Your task to perform on an android device: turn on javascript in the chrome app Image 0: 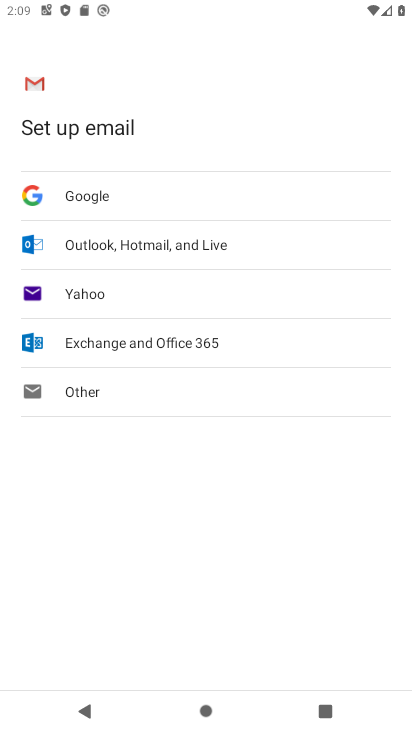
Step 0: press back button
Your task to perform on an android device: turn on javascript in the chrome app Image 1: 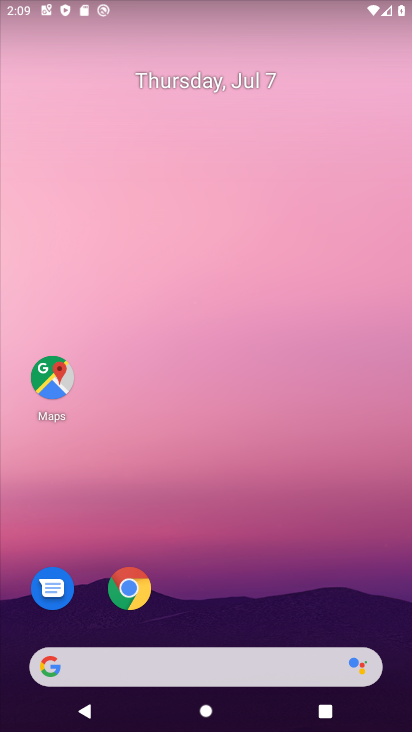
Step 1: click (141, 587)
Your task to perform on an android device: turn on javascript in the chrome app Image 2: 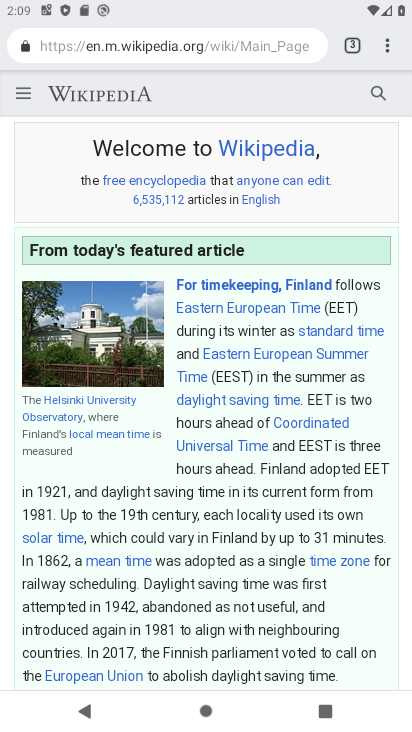
Step 2: drag from (386, 43) to (245, 502)
Your task to perform on an android device: turn on javascript in the chrome app Image 3: 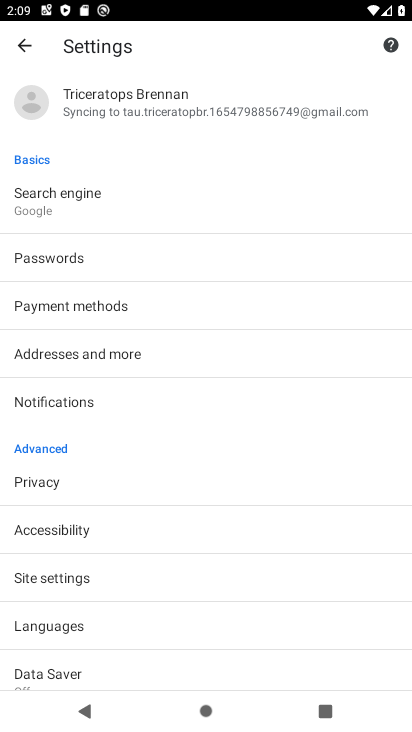
Step 3: click (75, 576)
Your task to perform on an android device: turn on javascript in the chrome app Image 4: 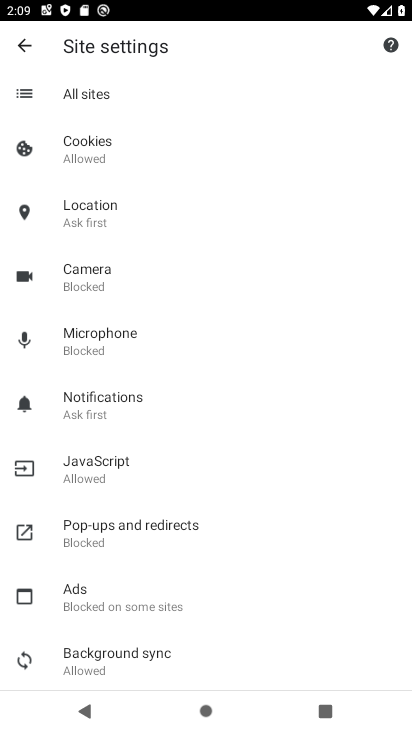
Step 4: click (107, 470)
Your task to perform on an android device: turn on javascript in the chrome app Image 5: 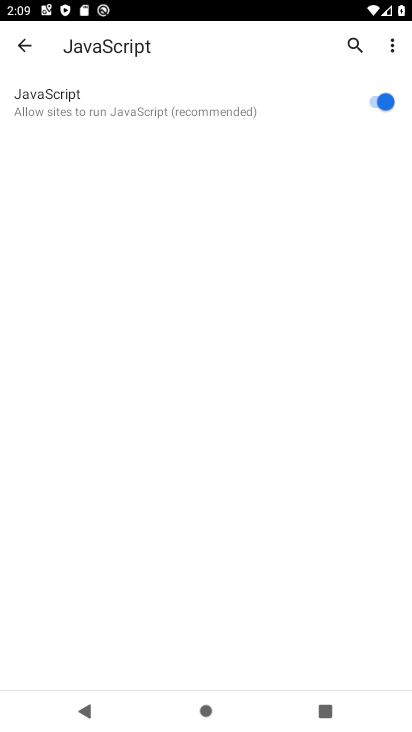
Step 5: task complete